Your task to perform on an android device: open a new tab in the chrome app Image 0: 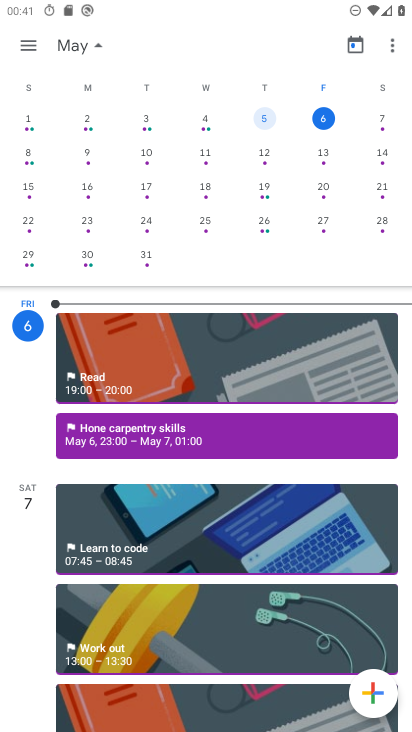
Step 0: press home button
Your task to perform on an android device: open a new tab in the chrome app Image 1: 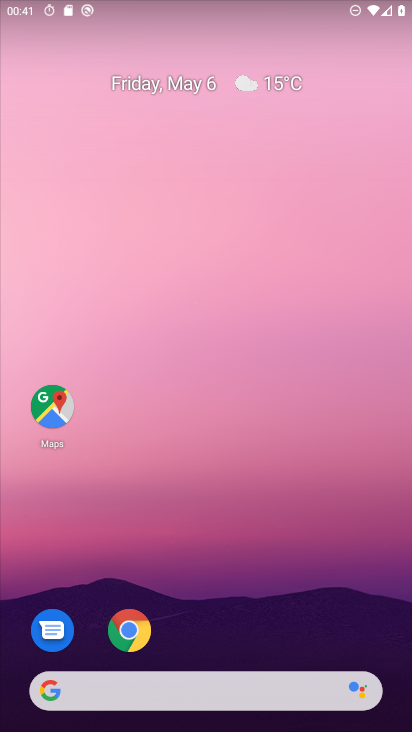
Step 1: drag from (246, 518) to (276, 79)
Your task to perform on an android device: open a new tab in the chrome app Image 2: 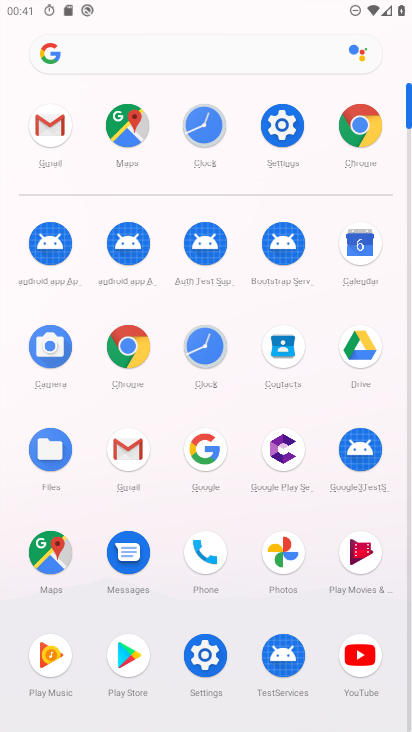
Step 2: click (131, 353)
Your task to perform on an android device: open a new tab in the chrome app Image 3: 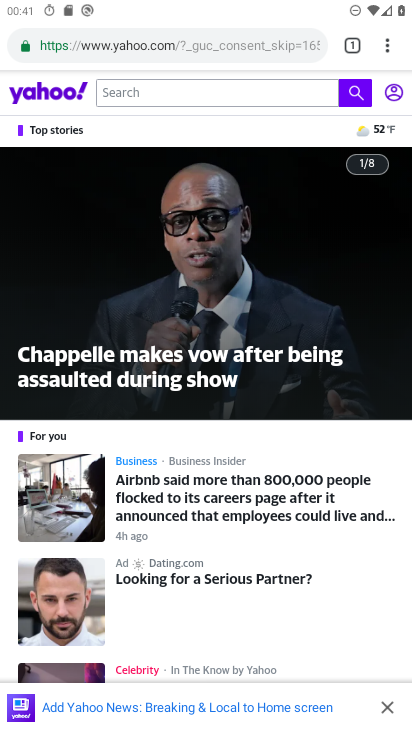
Step 3: task complete